Your task to perform on an android device: Turn on the flashlight Image 0: 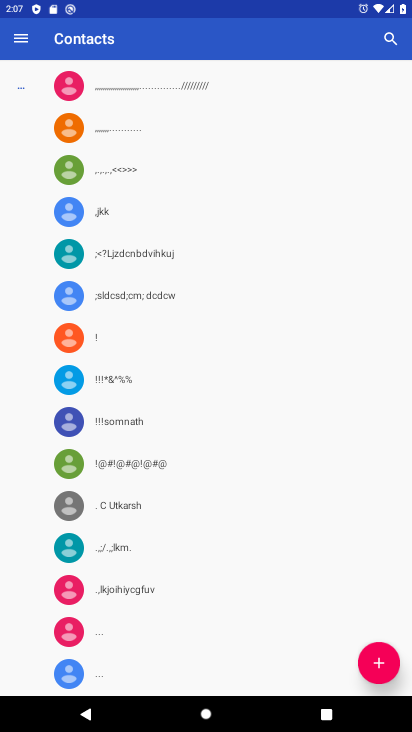
Step 0: press home button
Your task to perform on an android device: Turn on the flashlight Image 1: 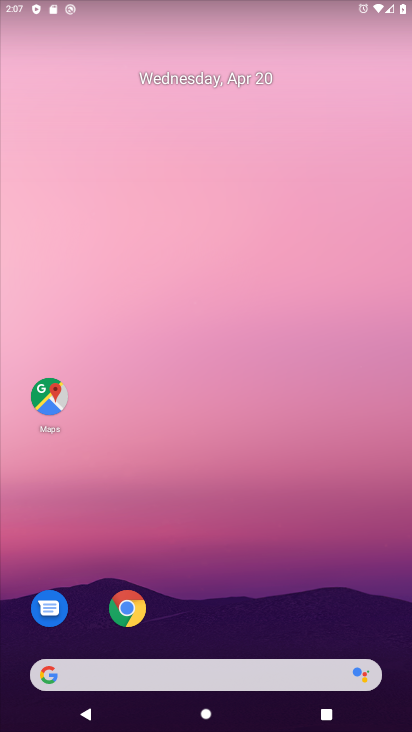
Step 1: drag from (290, 597) to (322, 49)
Your task to perform on an android device: Turn on the flashlight Image 2: 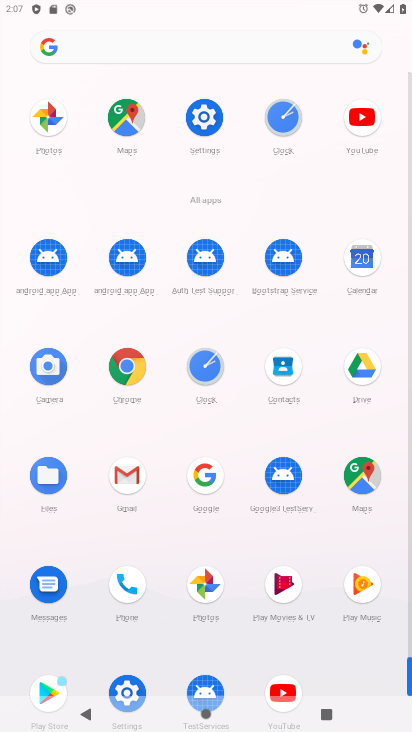
Step 2: click (202, 134)
Your task to perform on an android device: Turn on the flashlight Image 3: 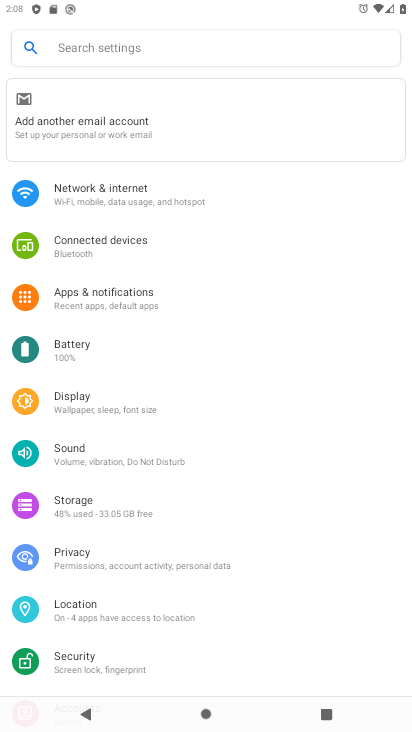
Step 3: task complete